Your task to perform on an android device: Open settings Image 0: 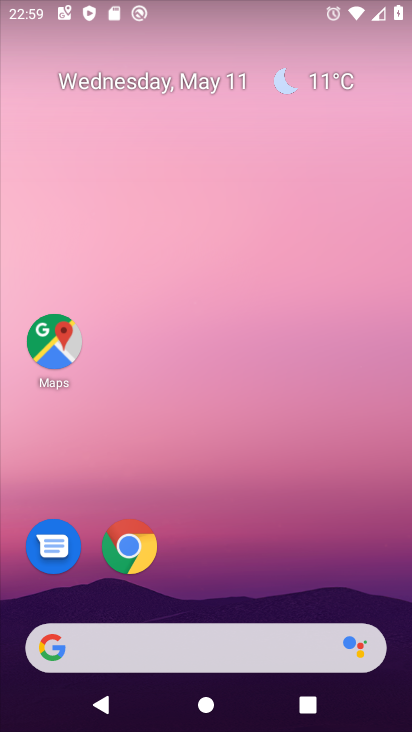
Step 0: drag from (398, 645) to (305, 192)
Your task to perform on an android device: Open settings Image 1: 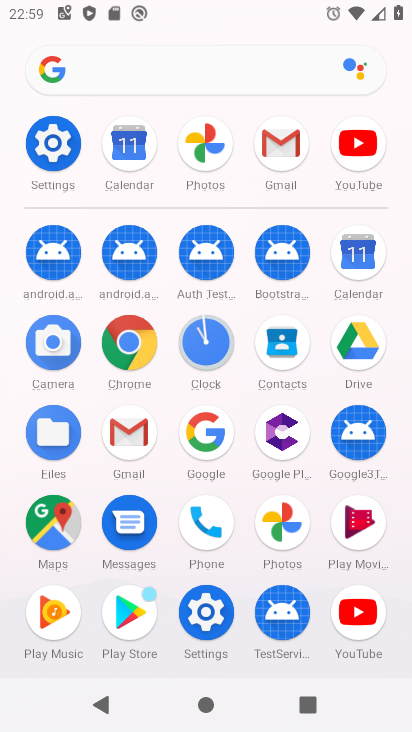
Step 1: click (204, 615)
Your task to perform on an android device: Open settings Image 2: 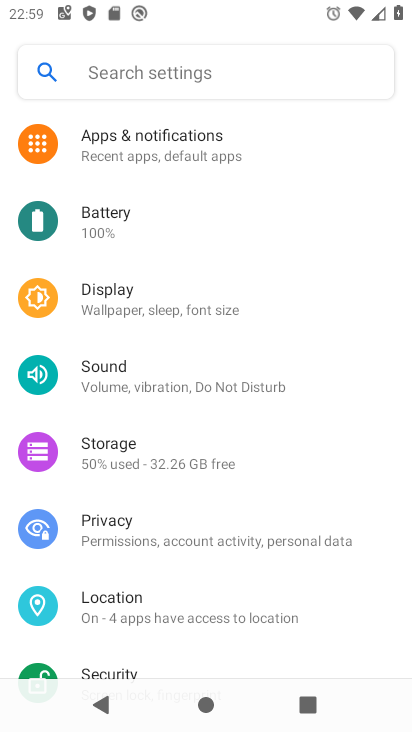
Step 2: task complete